Your task to perform on an android device: see creations saved in the google photos Image 0: 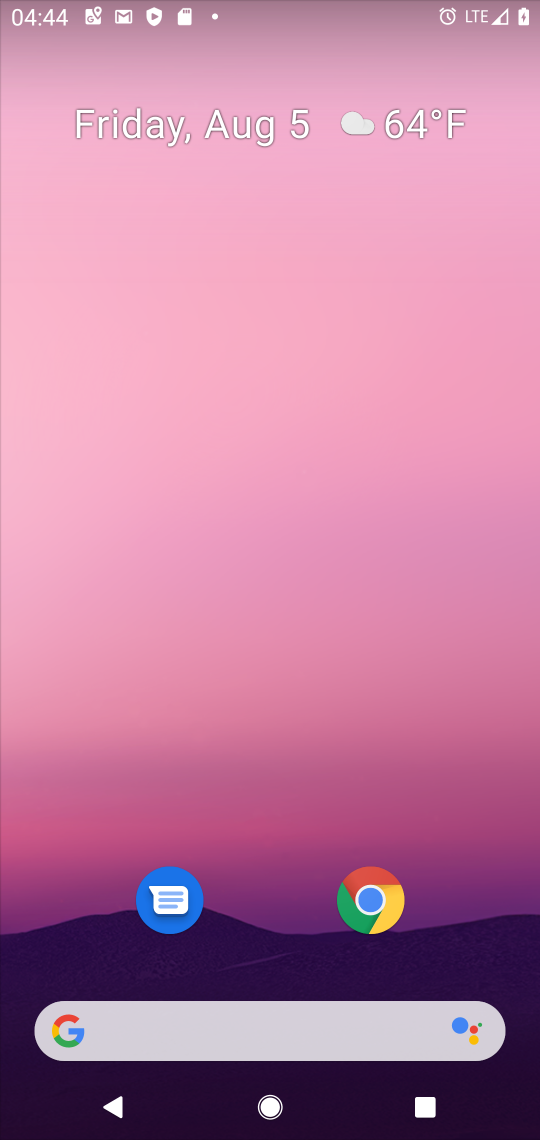
Step 0: drag from (244, 954) to (248, 60)
Your task to perform on an android device: see creations saved in the google photos Image 1: 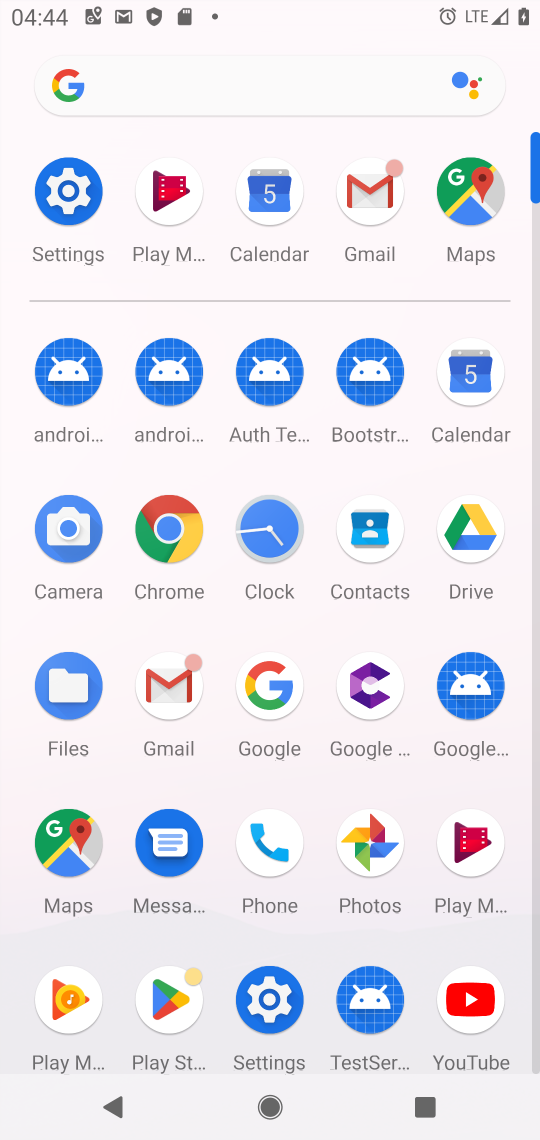
Step 1: click (359, 853)
Your task to perform on an android device: see creations saved in the google photos Image 2: 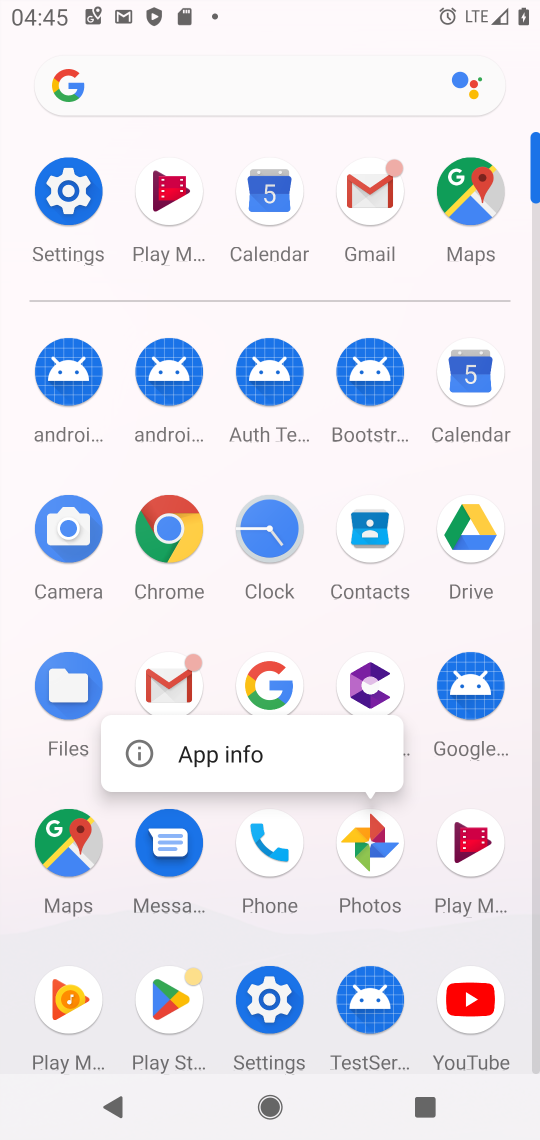
Step 2: click (355, 840)
Your task to perform on an android device: see creations saved in the google photos Image 3: 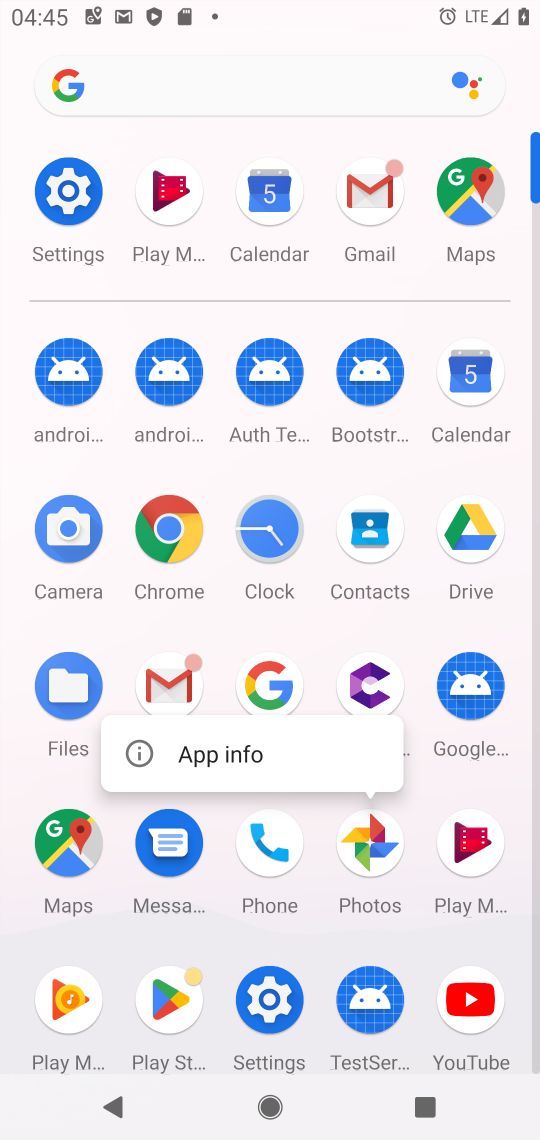
Step 3: click (377, 843)
Your task to perform on an android device: see creations saved in the google photos Image 4: 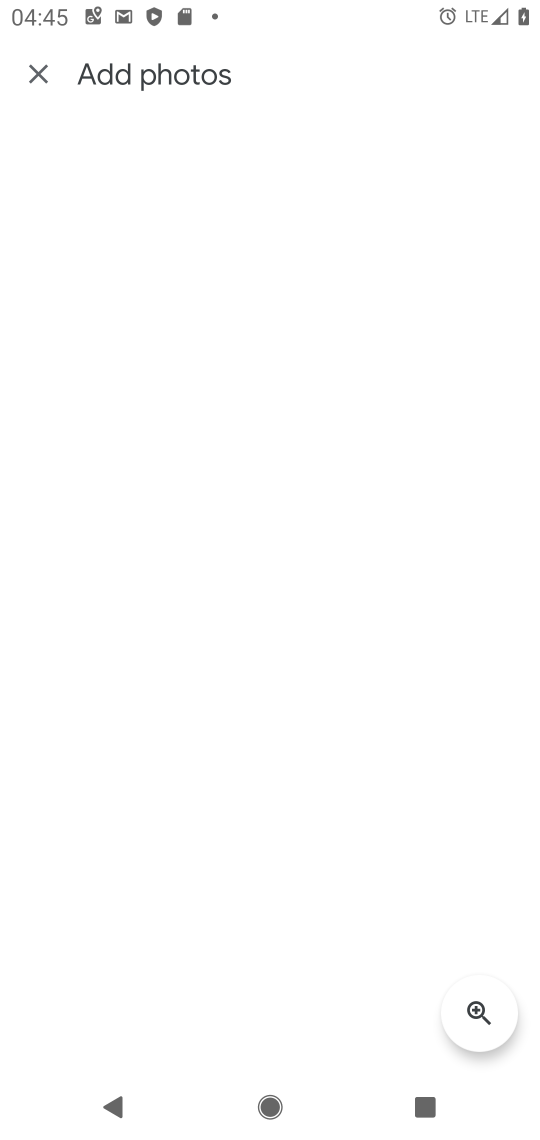
Step 4: click (42, 66)
Your task to perform on an android device: see creations saved in the google photos Image 5: 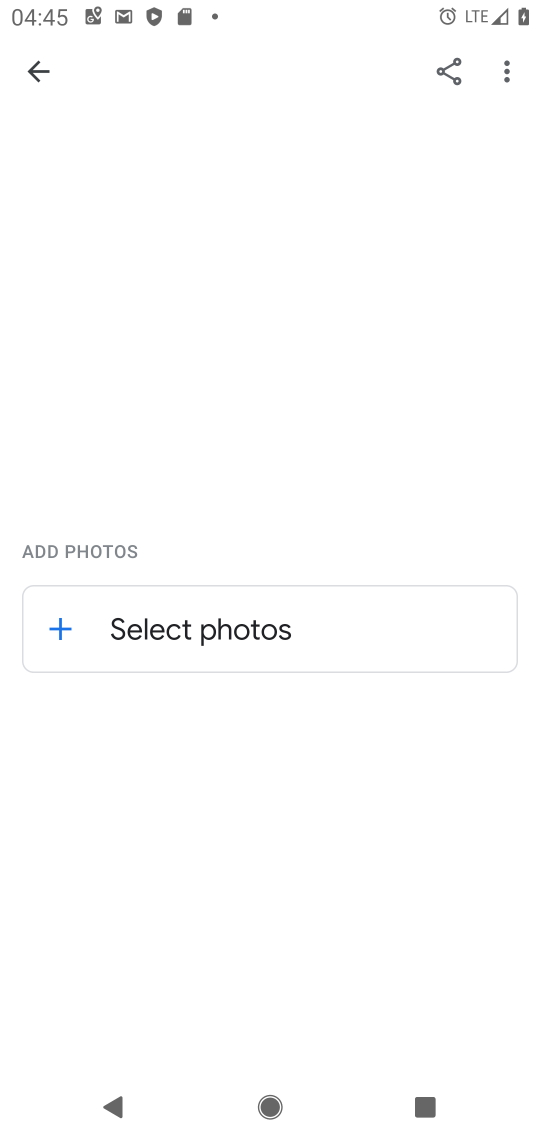
Step 5: click (42, 66)
Your task to perform on an android device: see creations saved in the google photos Image 6: 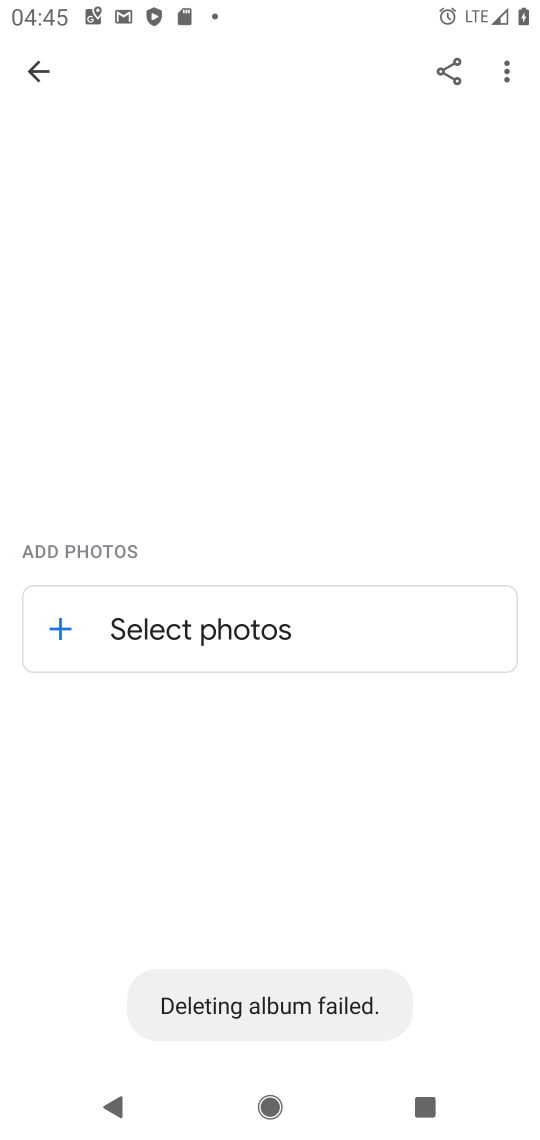
Step 6: click (36, 72)
Your task to perform on an android device: see creations saved in the google photos Image 7: 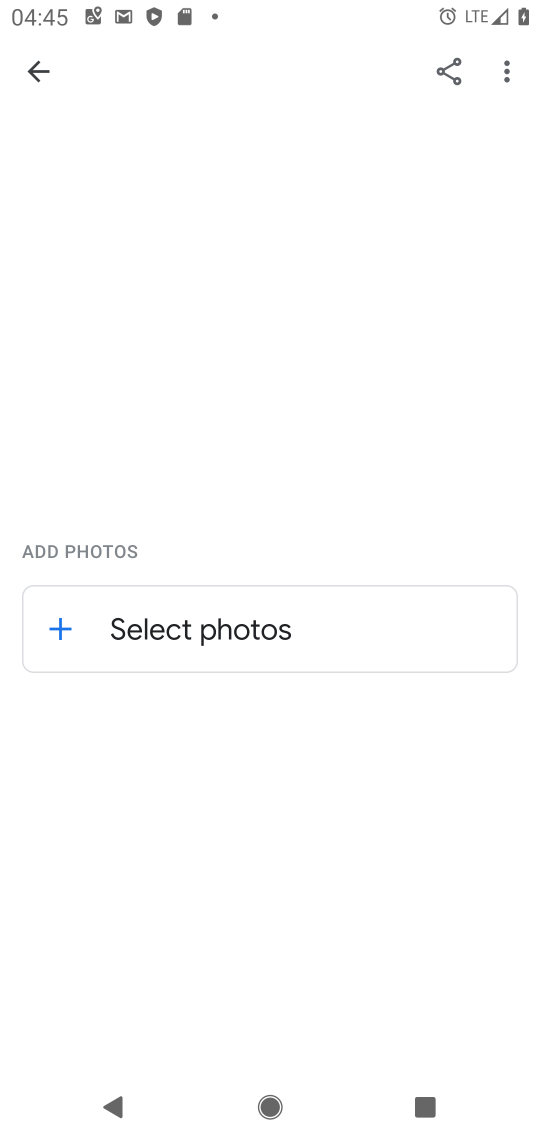
Step 7: click (36, 62)
Your task to perform on an android device: see creations saved in the google photos Image 8: 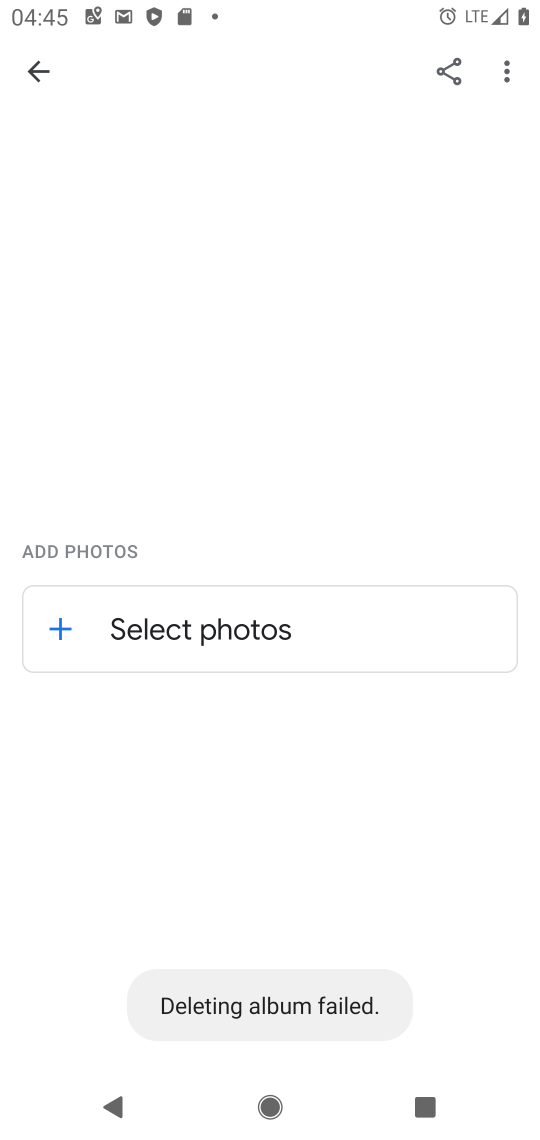
Step 8: click (38, 51)
Your task to perform on an android device: see creations saved in the google photos Image 9: 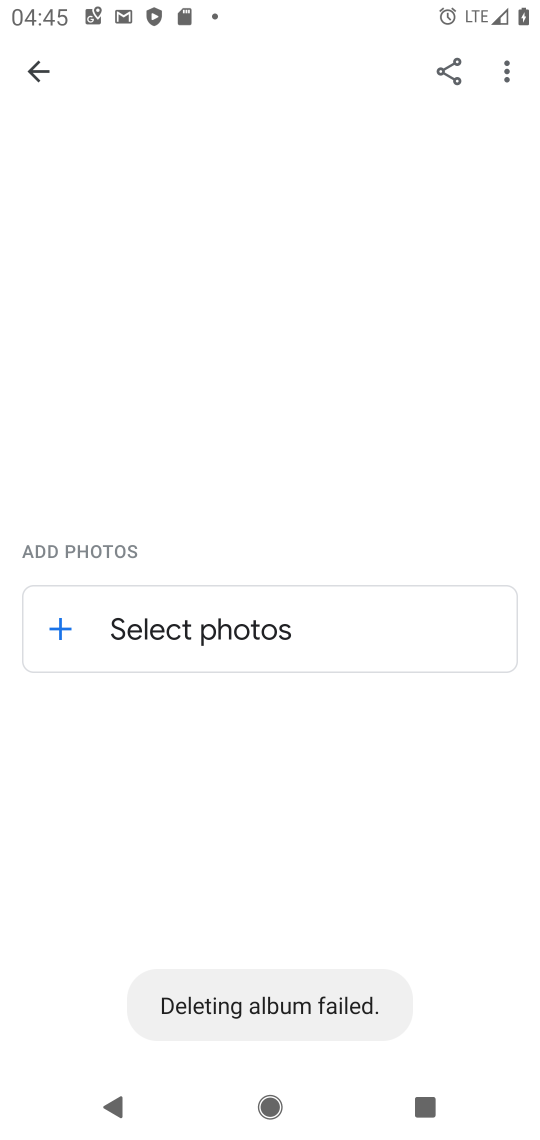
Step 9: click (31, 62)
Your task to perform on an android device: see creations saved in the google photos Image 10: 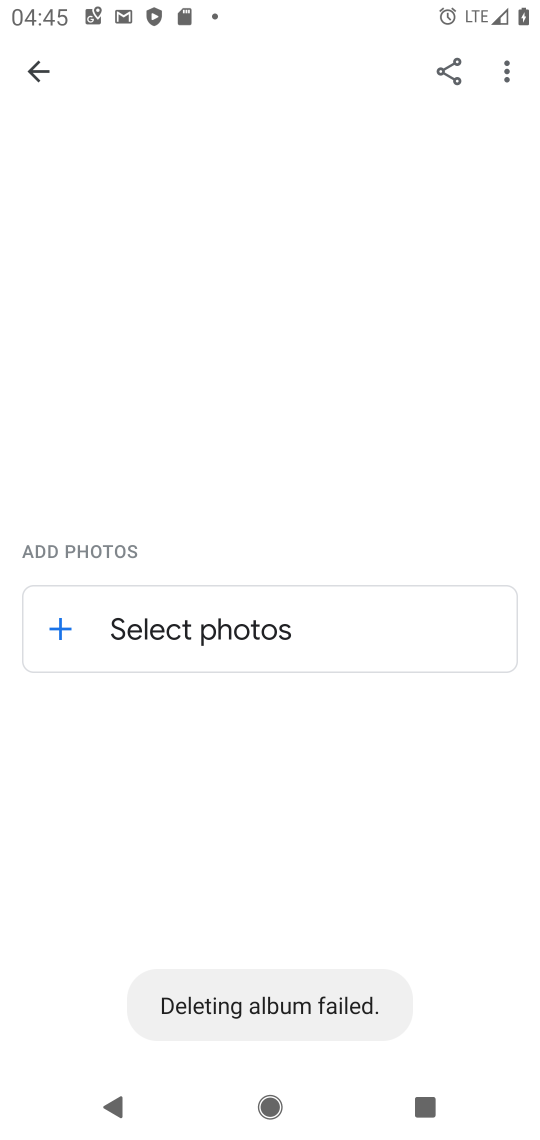
Step 10: press back button
Your task to perform on an android device: see creations saved in the google photos Image 11: 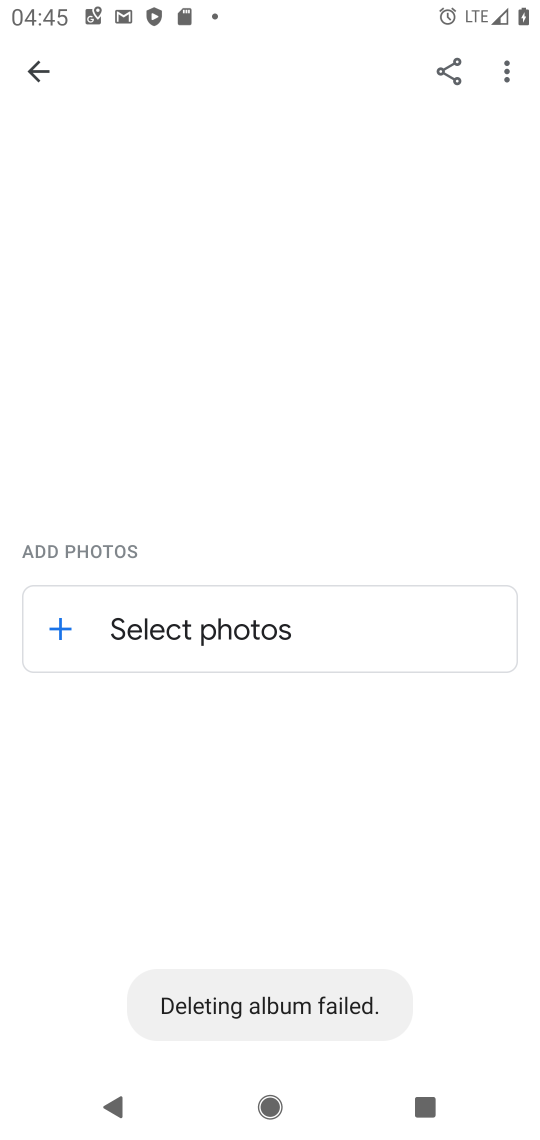
Step 11: press back button
Your task to perform on an android device: see creations saved in the google photos Image 12: 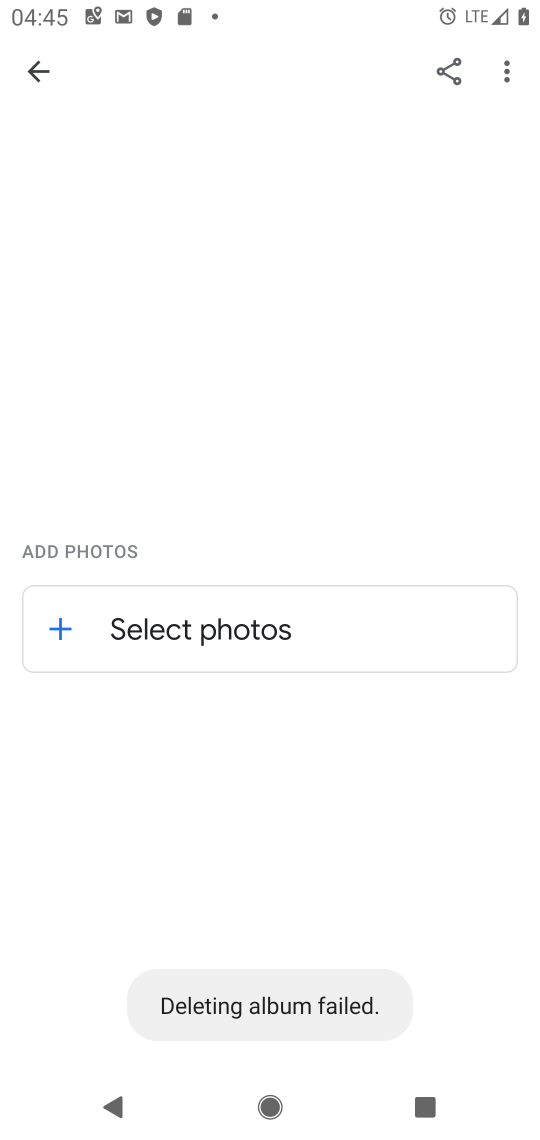
Step 12: press home button
Your task to perform on an android device: see creations saved in the google photos Image 13: 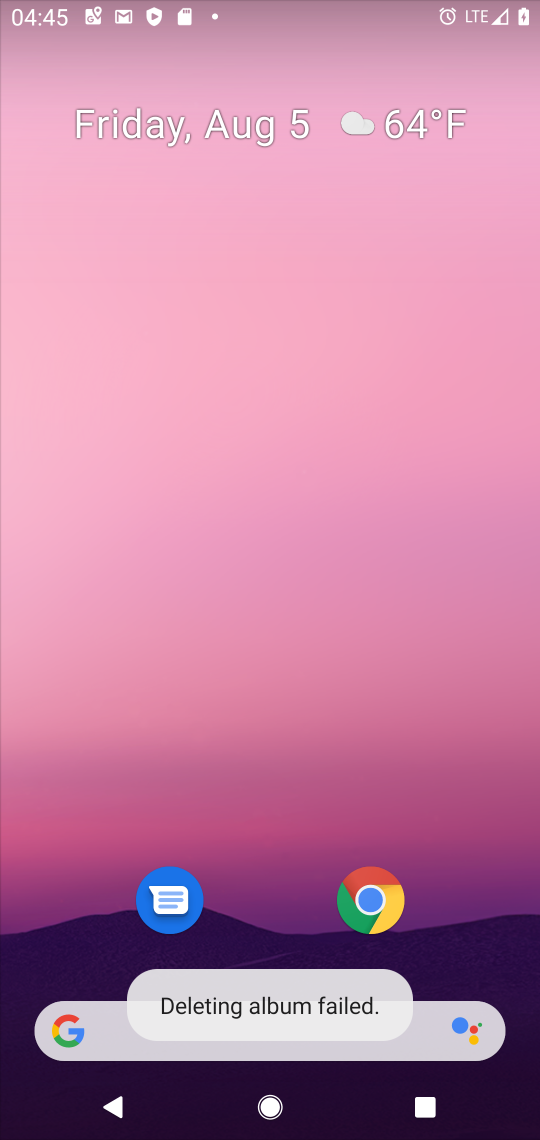
Step 13: drag from (210, 918) to (236, 143)
Your task to perform on an android device: see creations saved in the google photos Image 14: 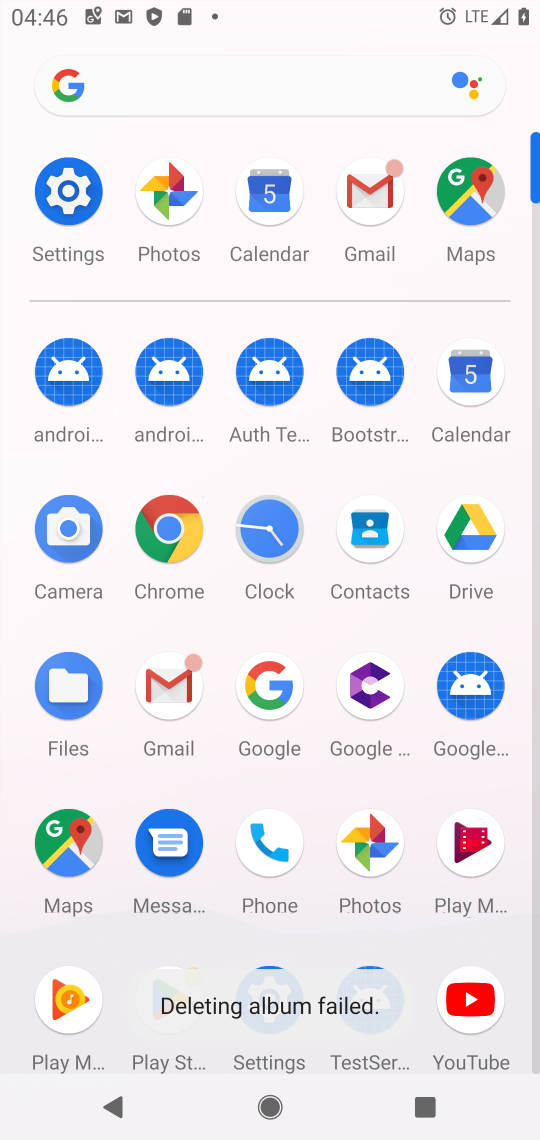
Step 14: click (358, 862)
Your task to perform on an android device: see creations saved in the google photos Image 15: 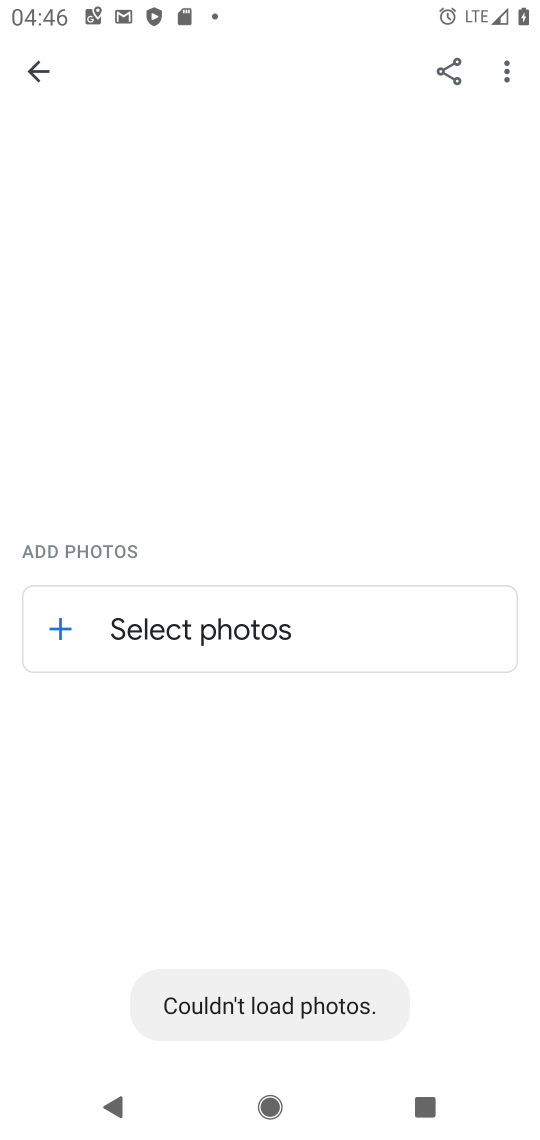
Step 15: click (42, 71)
Your task to perform on an android device: see creations saved in the google photos Image 16: 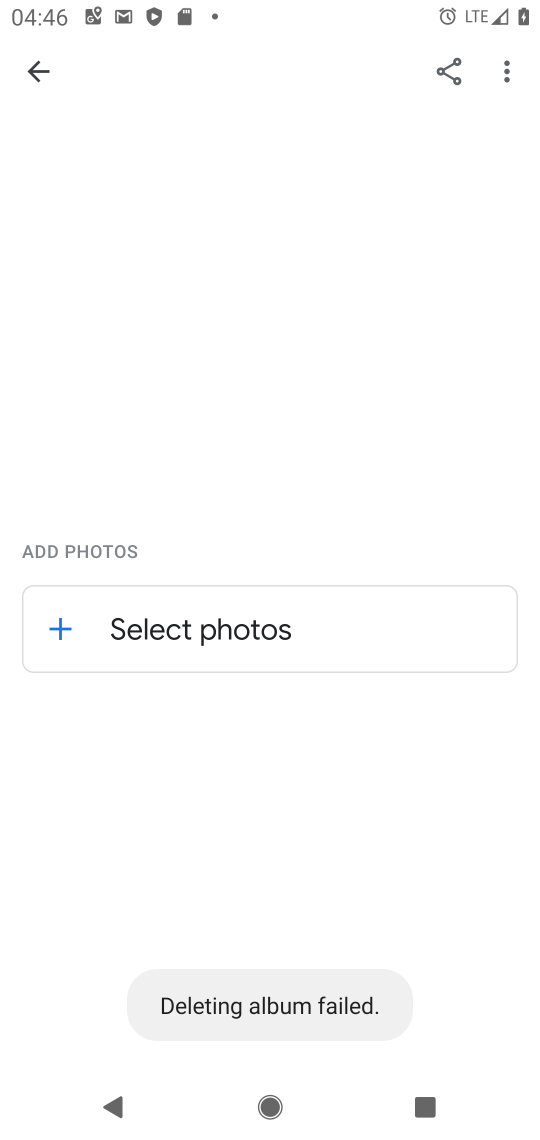
Step 16: task complete